Your task to perform on an android device: Go to Amazon Image 0: 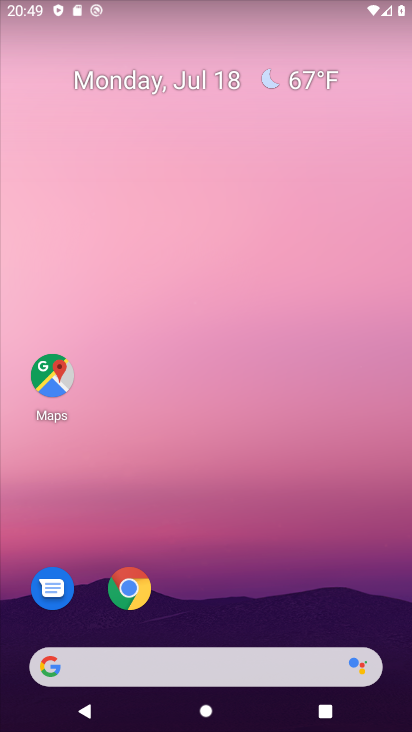
Step 0: click (131, 589)
Your task to perform on an android device: Go to Amazon Image 1: 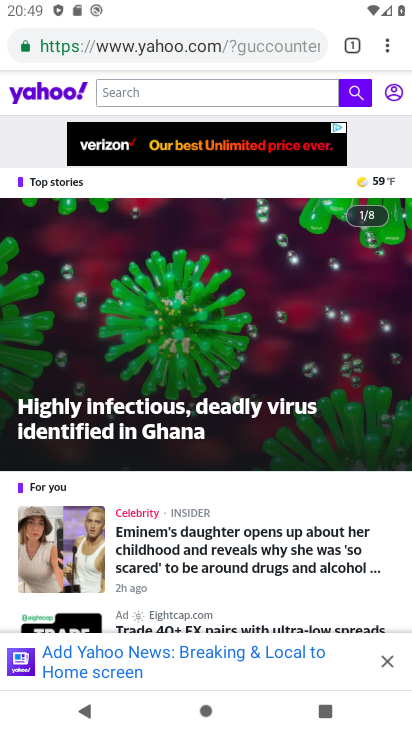
Step 1: click (264, 35)
Your task to perform on an android device: Go to Amazon Image 2: 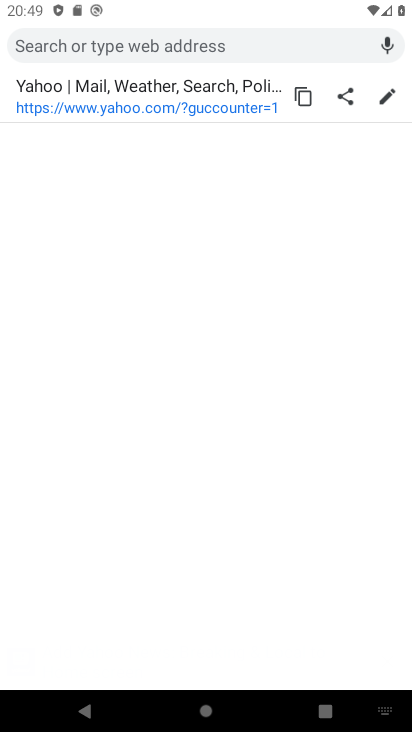
Step 2: type "amazon"
Your task to perform on an android device: Go to Amazon Image 3: 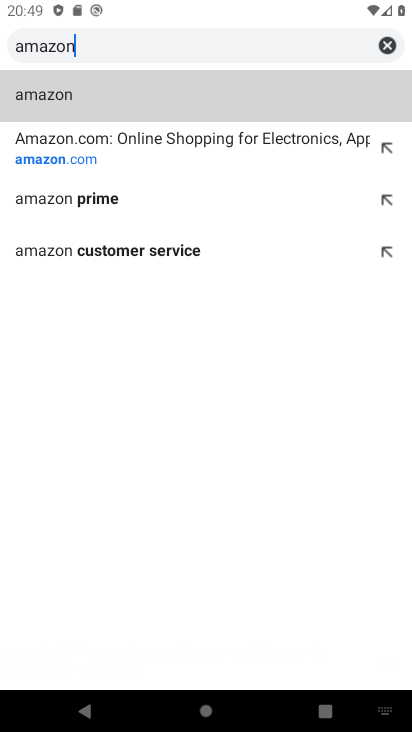
Step 3: click (66, 84)
Your task to perform on an android device: Go to Amazon Image 4: 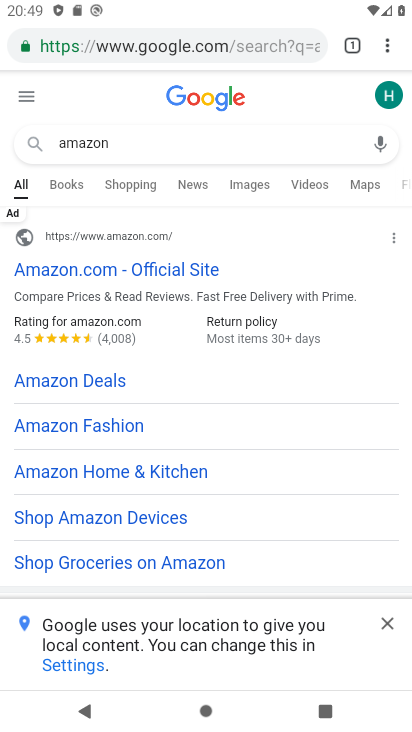
Step 4: click (86, 268)
Your task to perform on an android device: Go to Amazon Image 5: 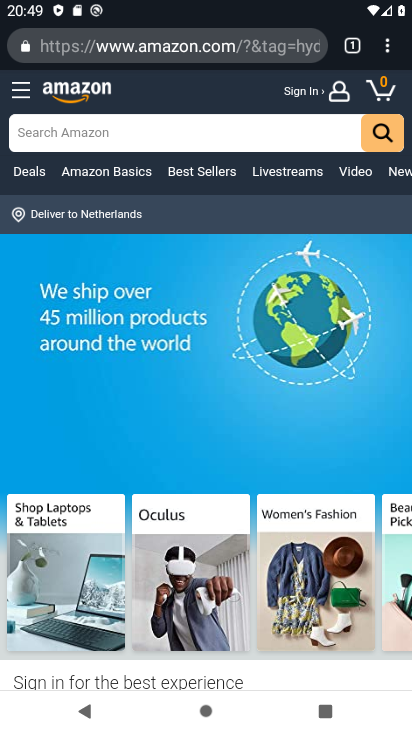
Step 5: task complete